Your task to perform on an android device: change notification settings in the gmail app Image 0: 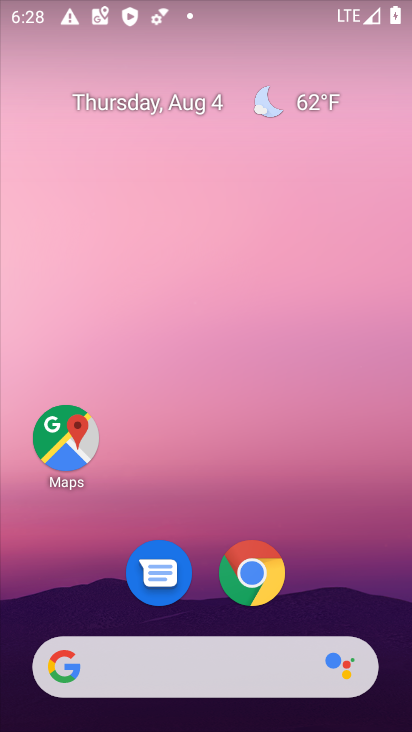
Step 0: press home button
Your task to perform on an android device: change notification settings in the gmail app Image 1: 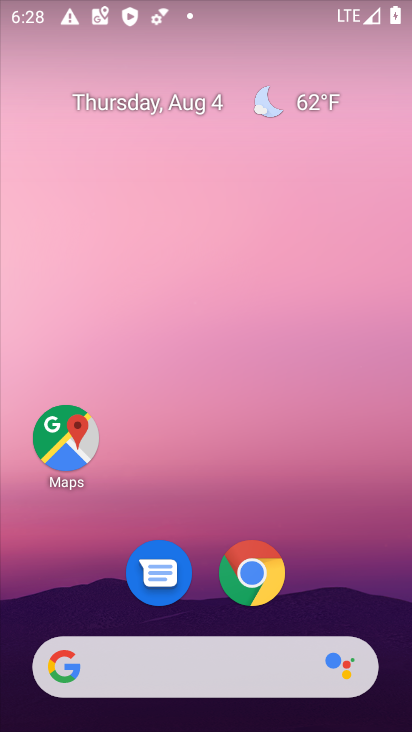
Step 1: drag from (217, 617) to (212, 240)
Your task to perform on an android device: change notification settings in the gmail app Image 2: 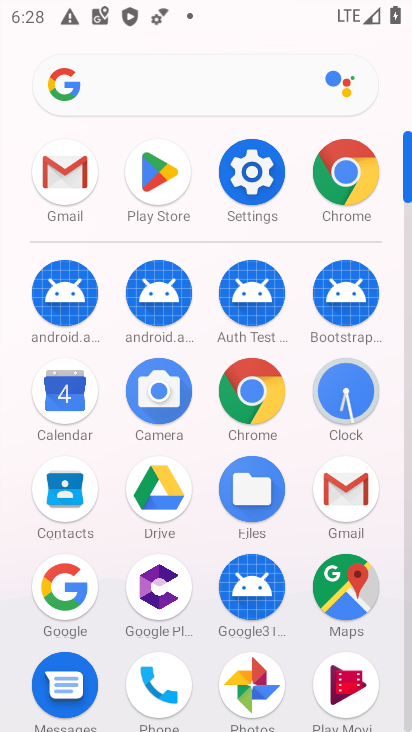
Step 2: click (57, 173)
Your task to perform on an android device: change notification settings in the gmail app Image 3: 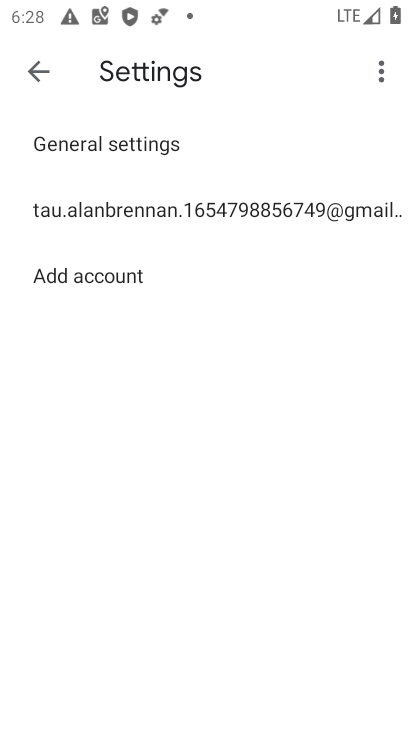
Step 3: click (131, 210)
Your task to perform on an android device: change notification settings in the gmail app Image 4: 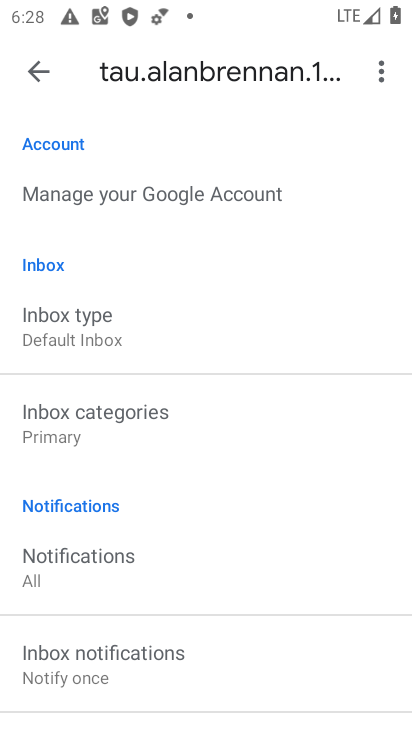
Step 4: drag from (193, 358) to (215, 186)
Your task to perform on an android device: change notification settings in the gmail app Image 5: 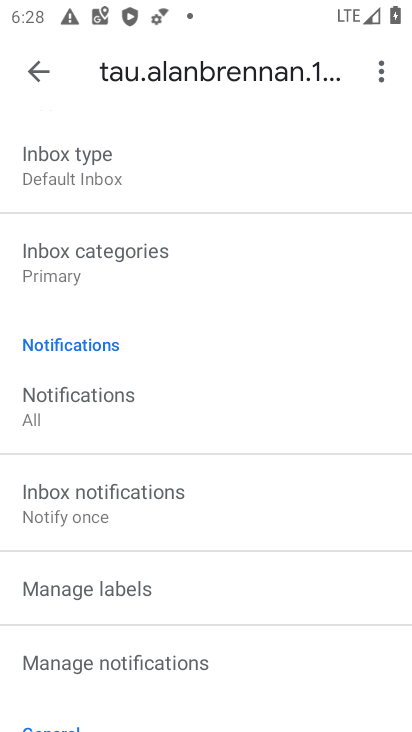
Step 5: click (136, 663)
Your task to perform on an android device: change notification settings in the gmail app Image 6: 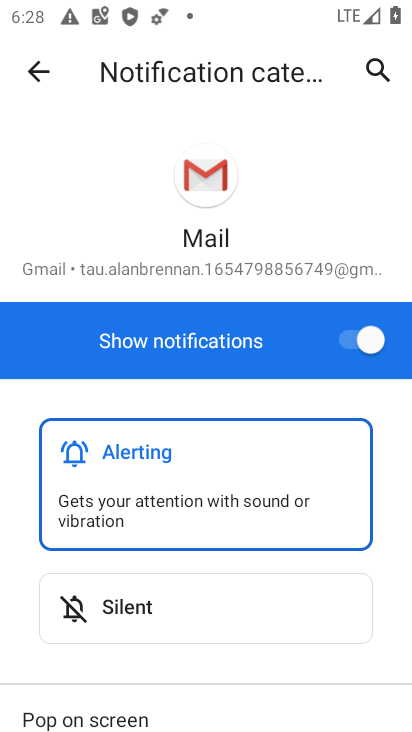
Step 6: click (376, 341)
Your task to perform on an android device: change notification settings in the gmail app Image 7: 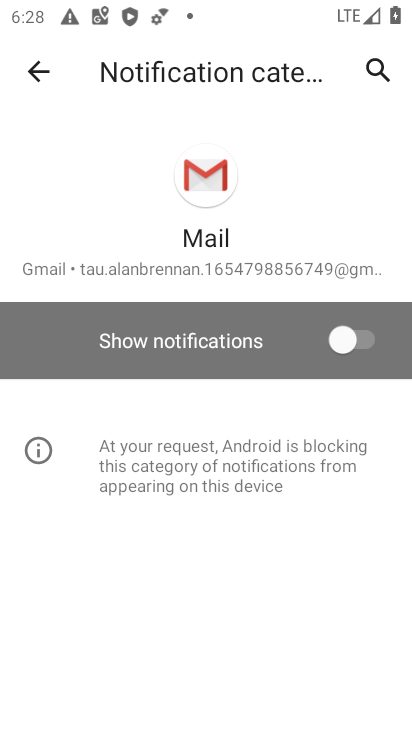
Step 7: task complete